Your task to perform on an android device: turn off improve location accuracy Image 0: 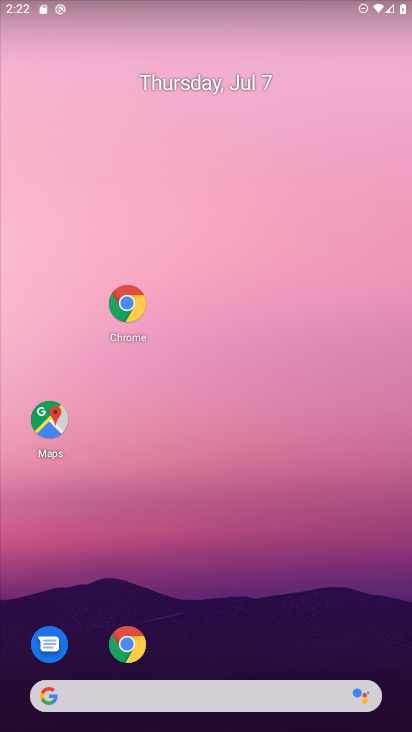
Step 0: drag from (191, 577) to (260, 31)
Your task to perform on an android device: turn off improve location accuracy Image 1: 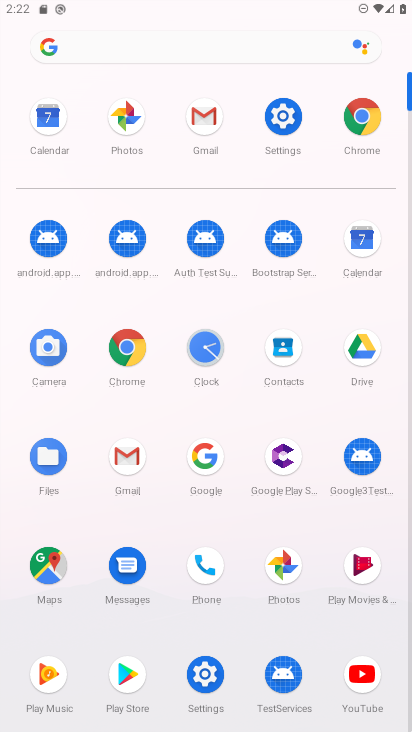
Step 1: click (278, 122)
Your task to perform on an android device: turn off improve location accuracy Image 2: 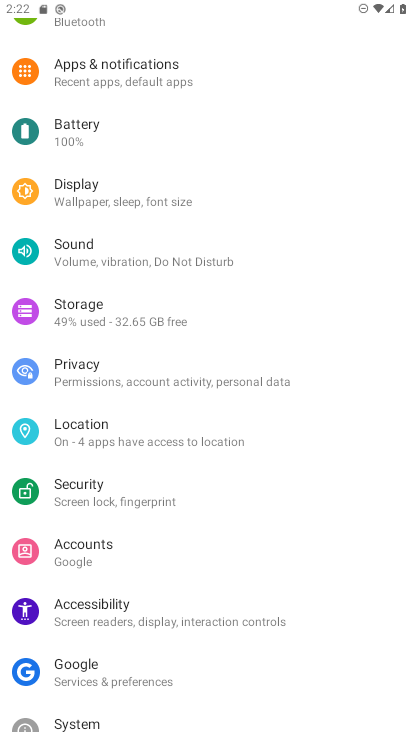
Step 2: click (128, 429)
Your task to perform on an android device: turn off improve location accuracy Image 3: 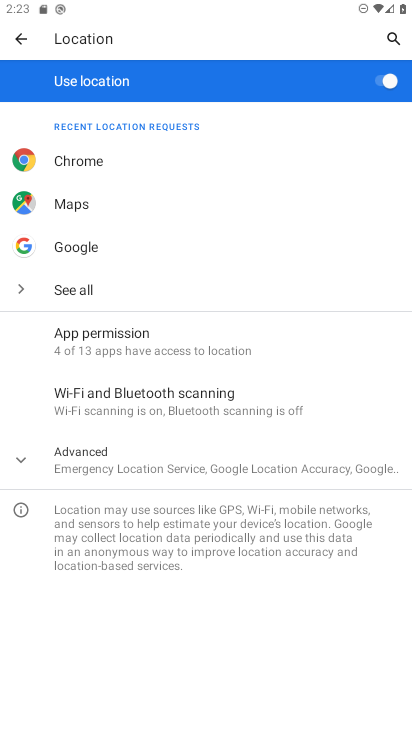
Step 3: click (152, 459)
Your task to perform on an android device: turn off improve location accuracy Image 4: 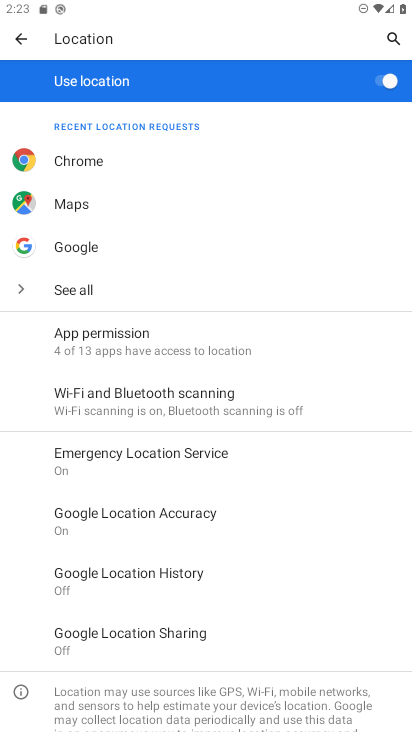
Step 4: click (174, 506)
Your task to perform on an android device: turn off improve location accuracy Image 5: 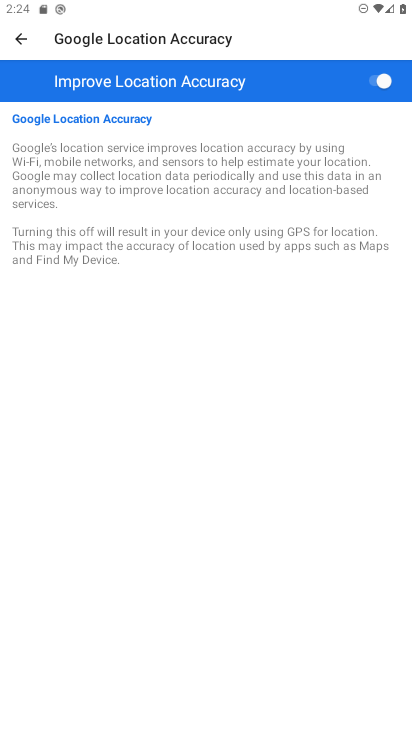
Step 5: click (377, 87)
Your task to perform on an android device: turn off improve location accuracy Image 6: 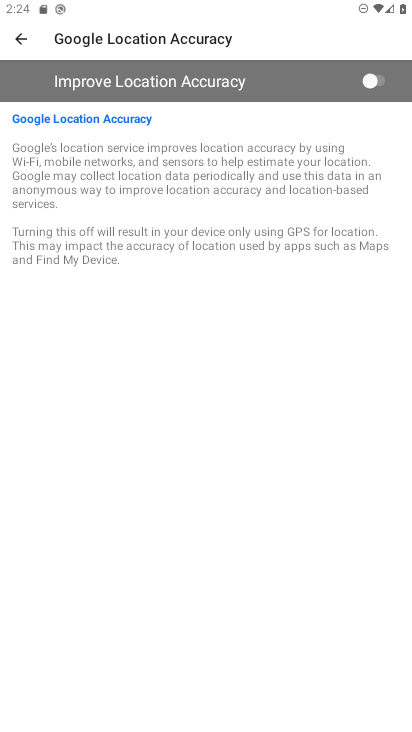
Step 6: task complete